Your task to perform on an android device: What's the weather going to be this weekend? Image 0: 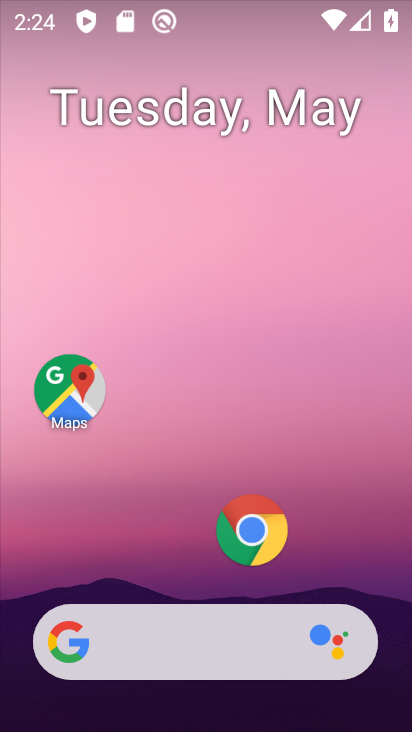
Step 0: click (196, 572)
Your task to perform on an android device: What's the weather going to be this weekend? Image 1: 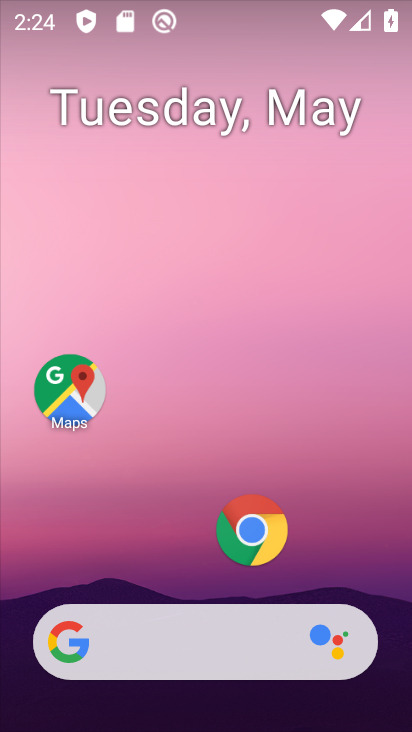
Step 1: drag from (216, 443) to (273, 89)
Your task to perform on an android device: What's the weather going to be this weekend? Image 2: 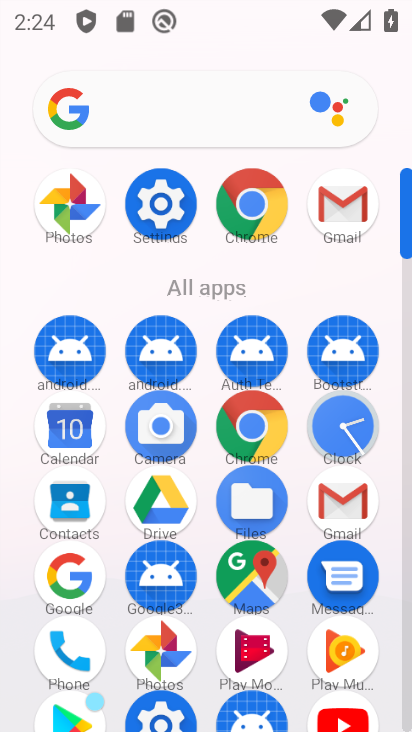
Step 2: press home button
Your task to perform on an android device: What's the weather going to be this weekend? Image 3: 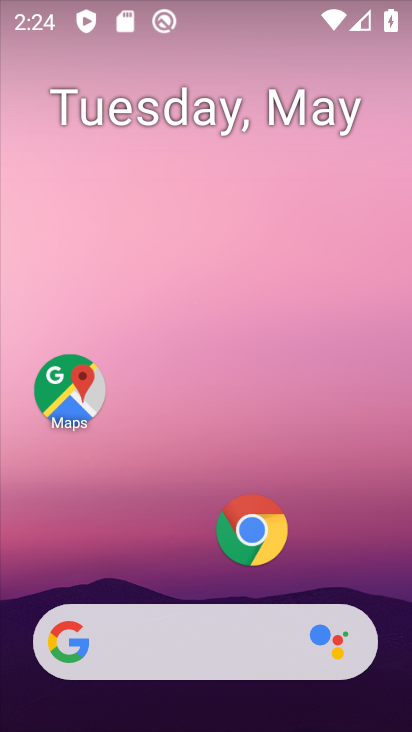
Step 3: drag from (21, 241) to (280, 217)
Your task to perform on an android device: What's the weather going to be this weekend? Image 4: 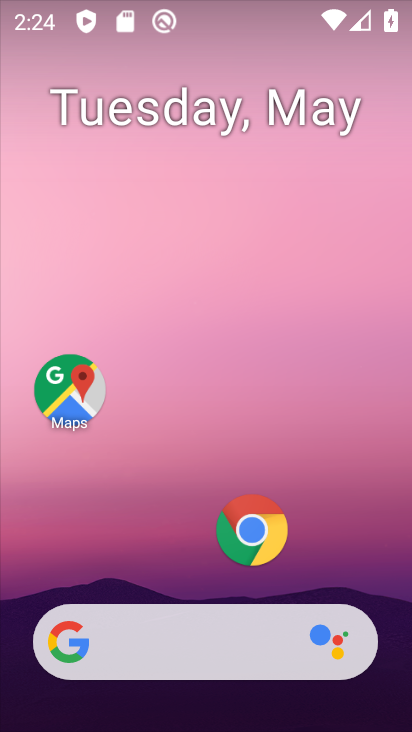
Step 4: drag from (15, 259) to (382, 258)
Your task to perform on an android device: What's the weather going to be this weekend? Image 5: 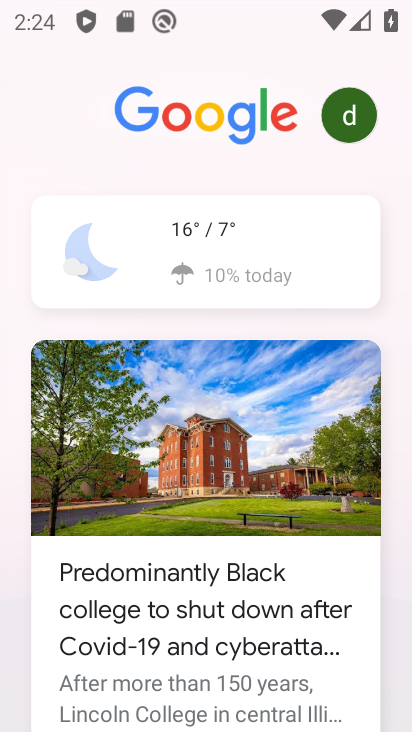
Step 5: click (215, 232)
Your task to perform on an android device: What's the weather going to be this weekend? Image 6: 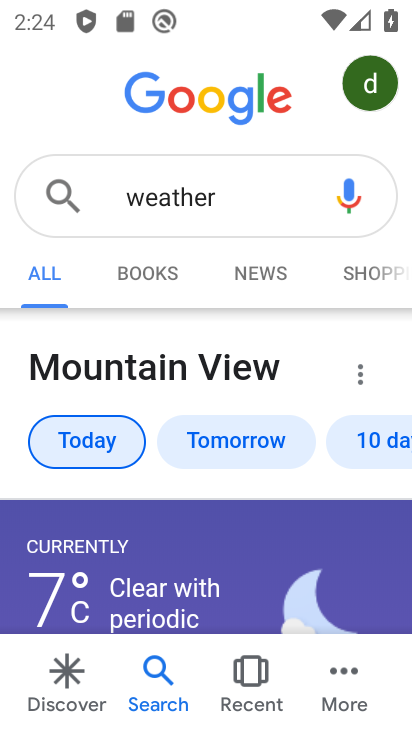
Step 6: click (385, 442)
Your task to perform on an android device: What's the weather going to be this weekend? Image 7: 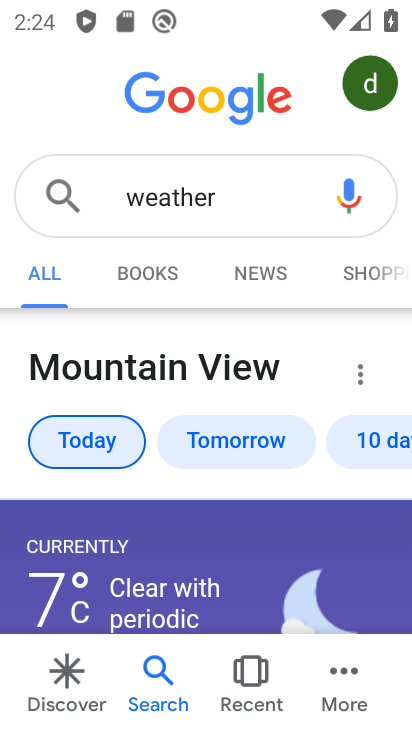
Step 7: click (347, 449)
Your task to perform on an android device: What's the weather going to be this weekend? Image 8: 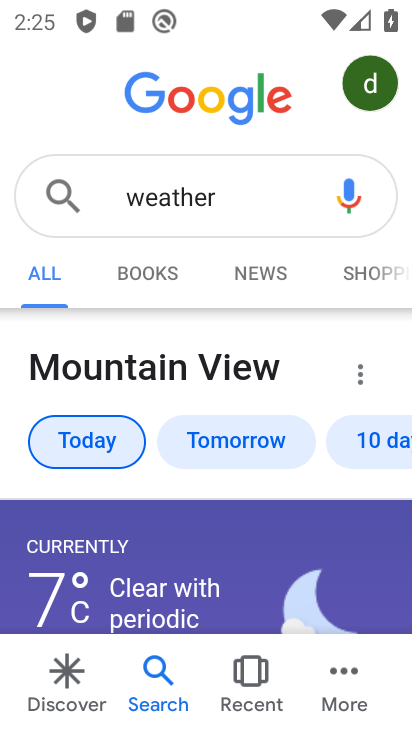
Step 8: click (368, 431)
Your task to perform on an android device: What's the weather going to be this weekend? Image 9: 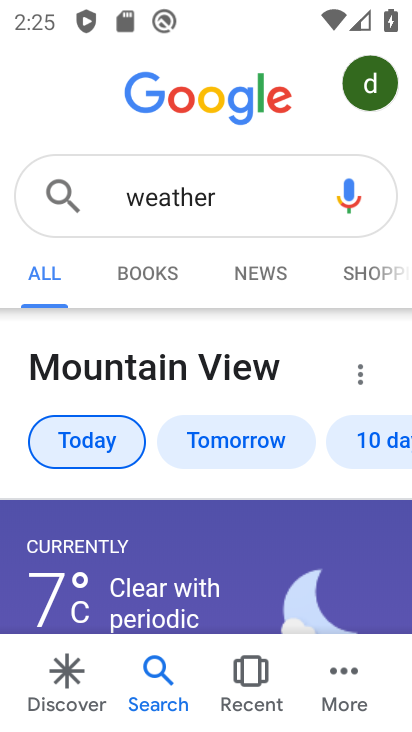
Step 9: click (388, 440)
Your task to perform on an android device: What's the weather going to be this weekend? Image 10: 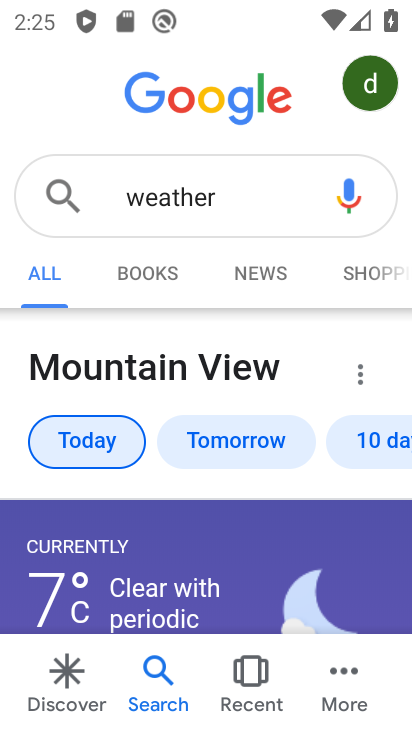
Step 10: task complete